Your task to perform on an android device: Go to Maps Image 0: 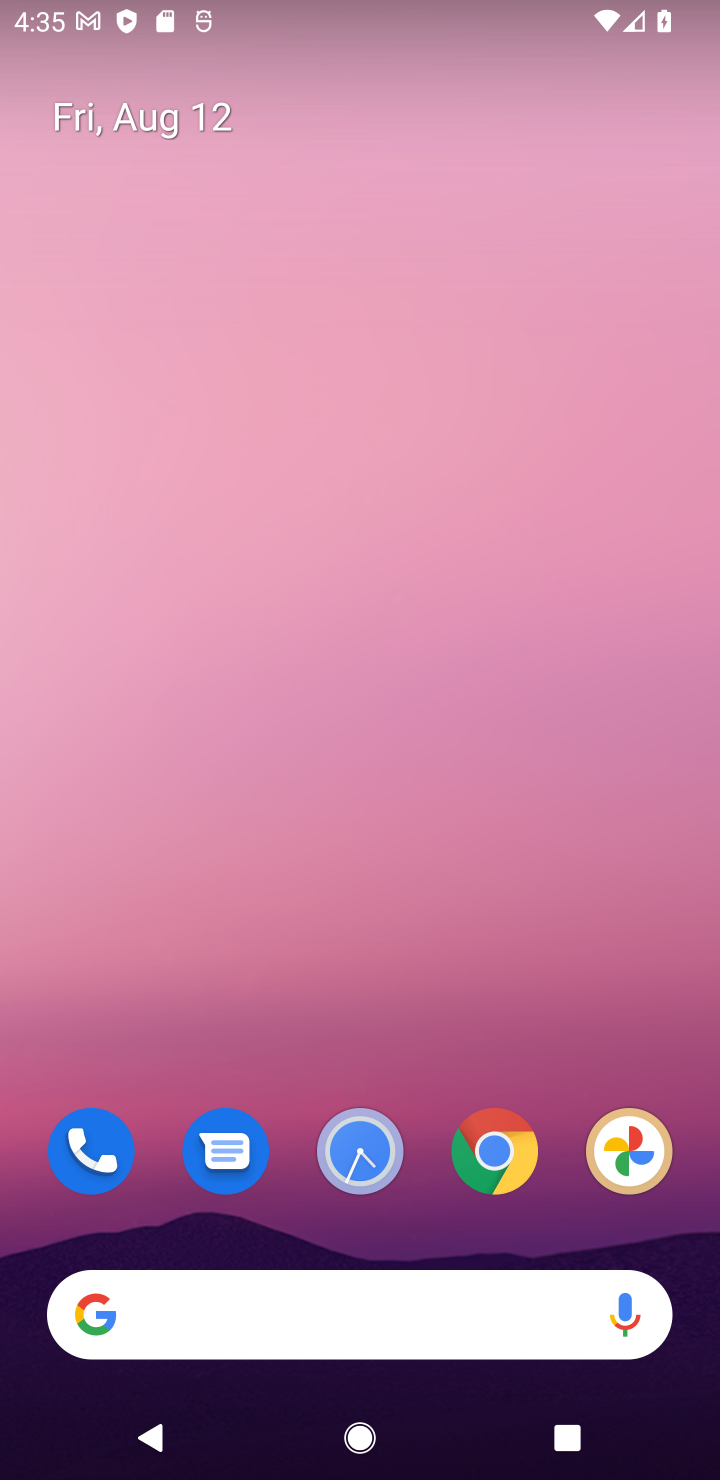
Step 0: drag from (372, 1040) to (418, 120)
Your task to perform on an android device: Go to Maps Image 1: 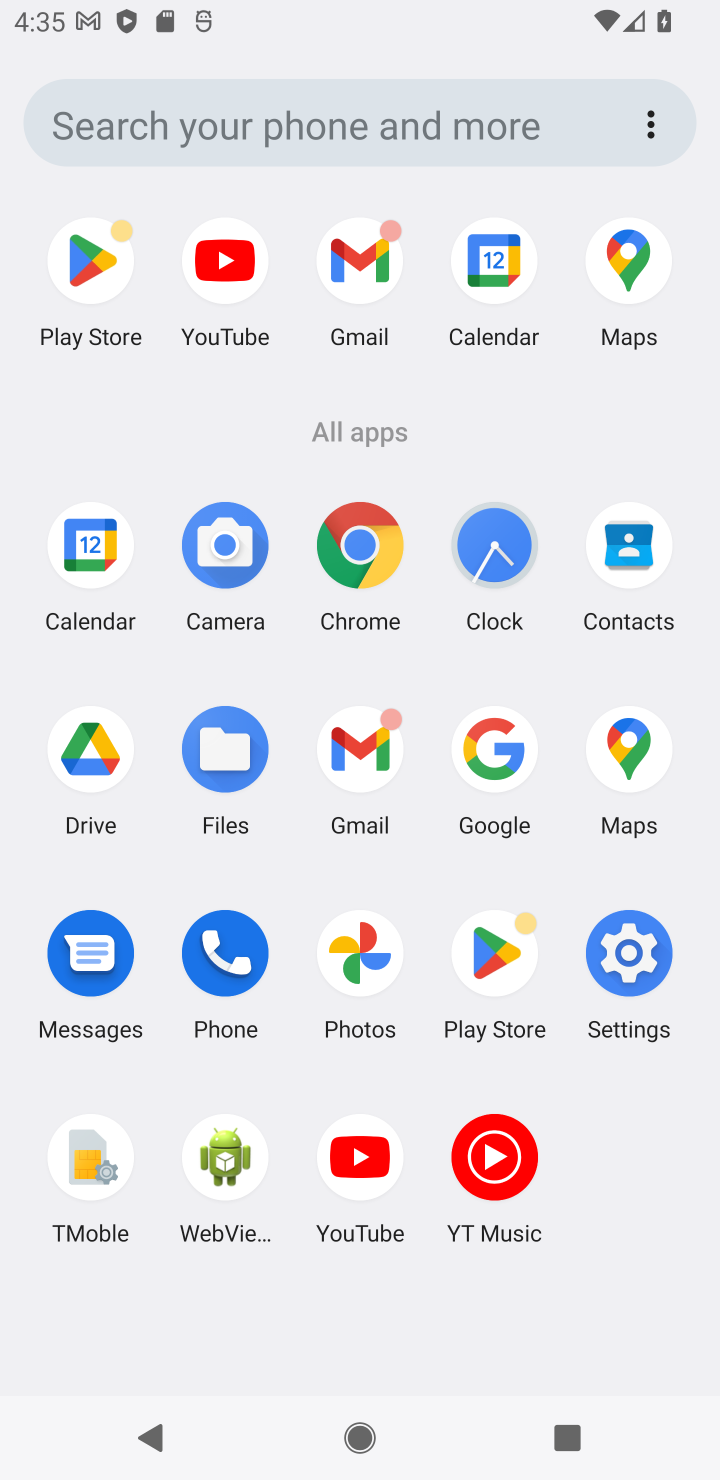
Step 1: click (612, 739)
Your task to perform on an android device: Go to Maps Image 2: 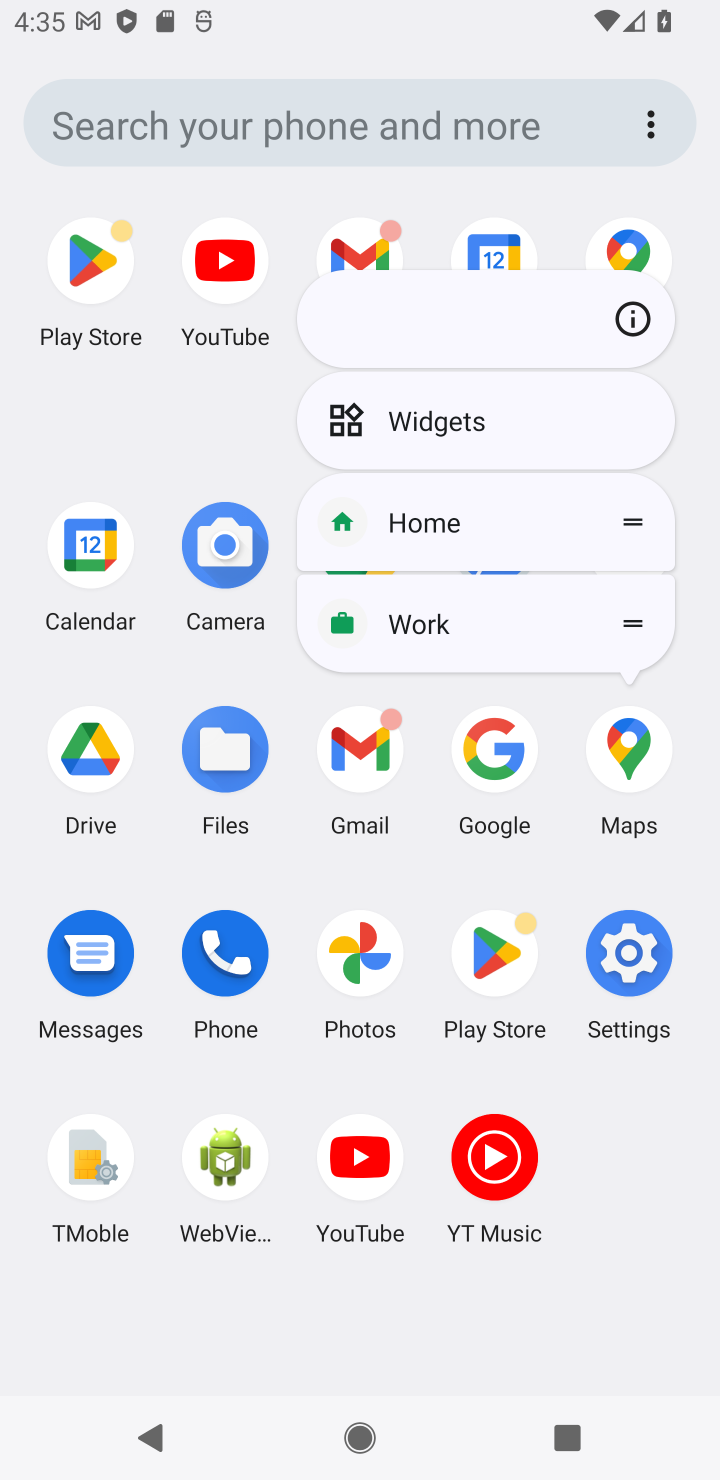
Step 2: click (615, 741)
Your task to perform on an android device: Go to Maps Image 3: 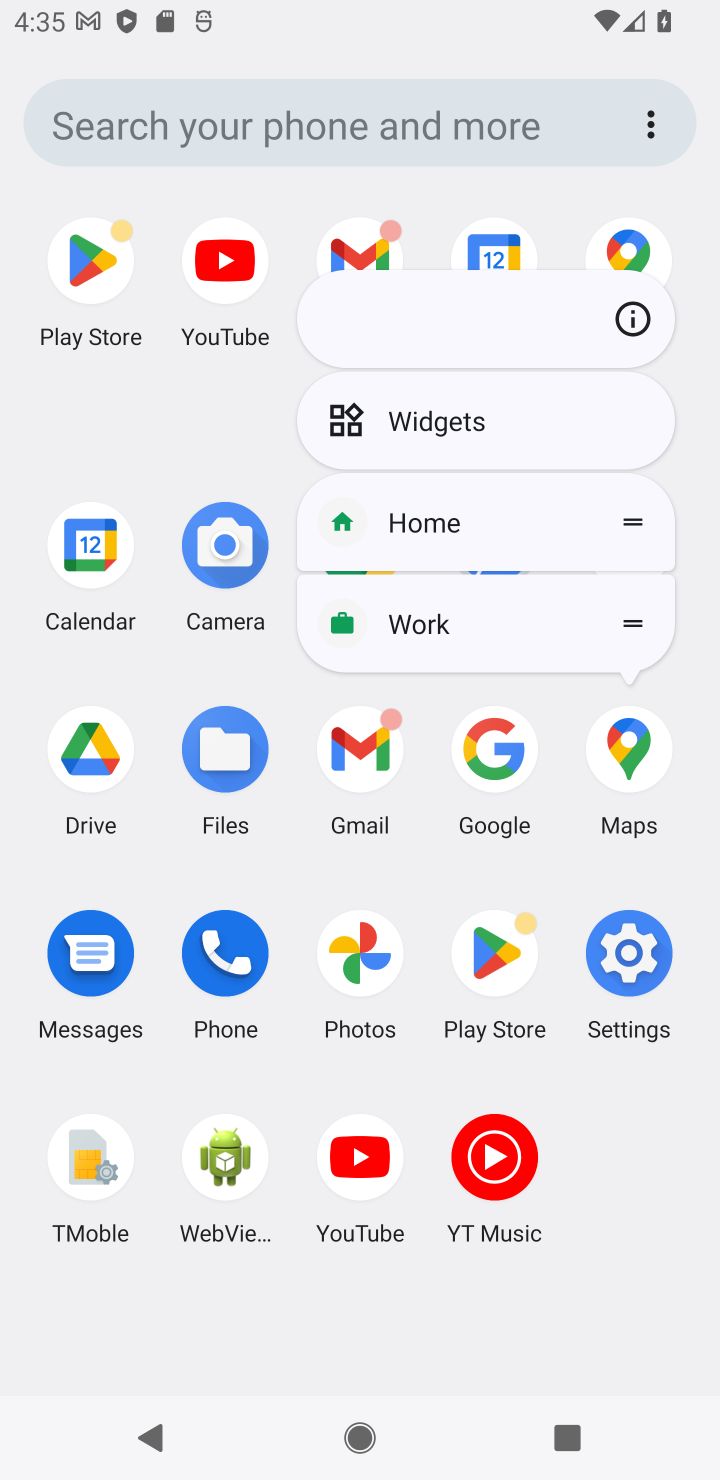
Step 3: click (609, 742)
Your task to perform on an android device: Go to Maps Image 4: 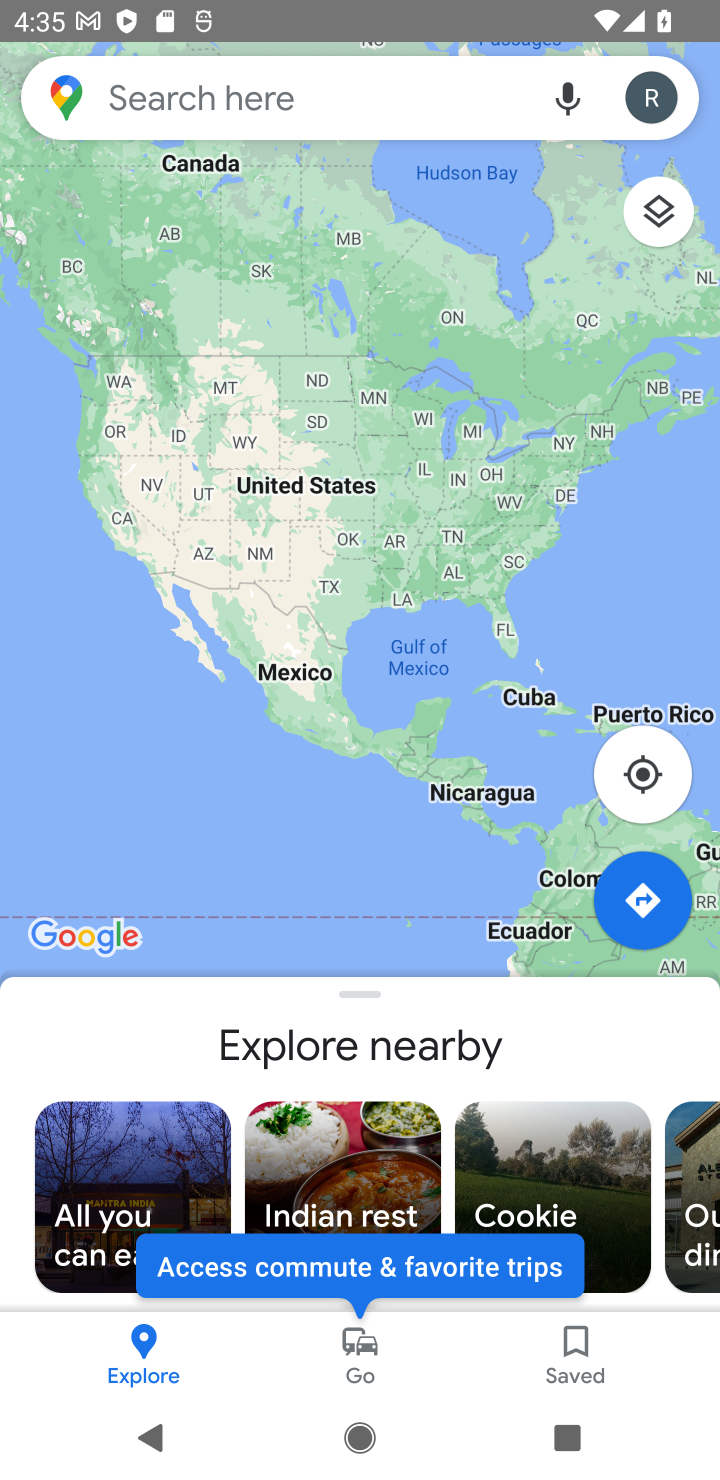
Step 4: task complete